Your task to perform on an android device: Open privacy settings Image 0: 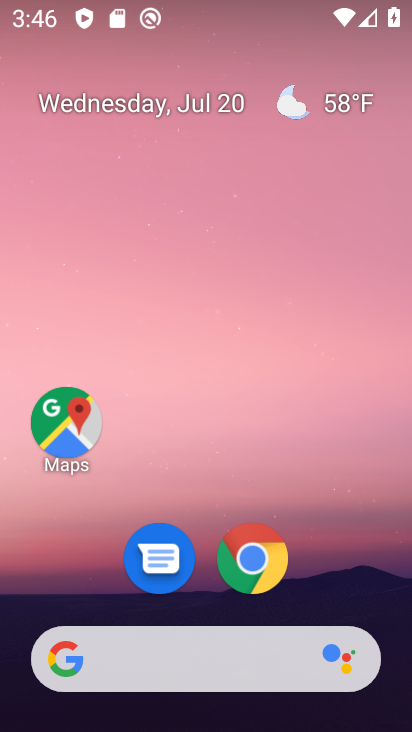
Step 0: drag from (106, 548) to (240, 10)
Your task to perform on an android device: Open privacy settings Image 1: 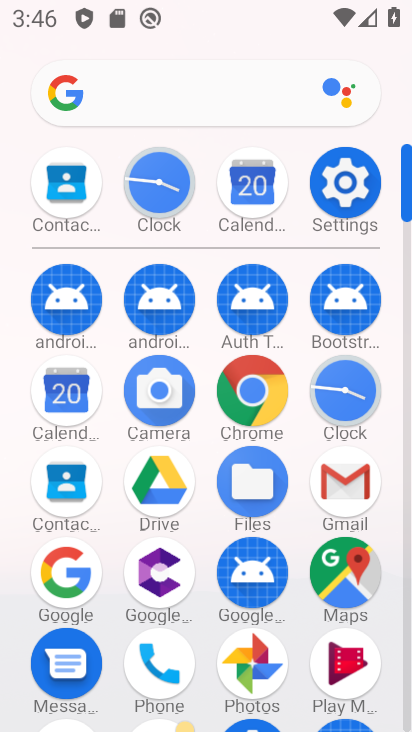
Step 1: click (343, 187)
Your task to perform on an android device: Open privacy settings Image 2: 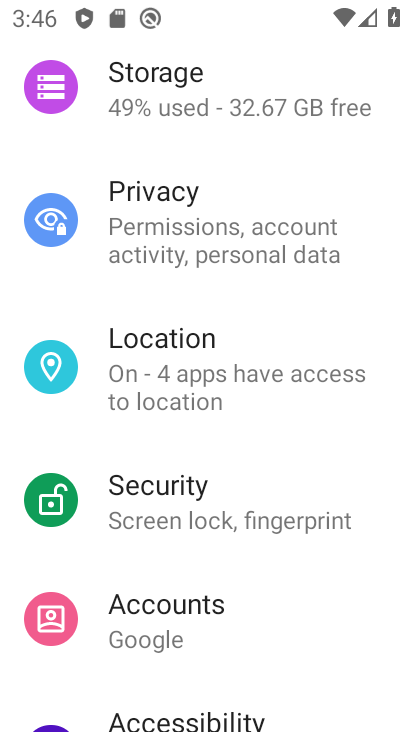
Step 2: click (171, 223)
Your task to perform on an android device: Open privacy settings Image 3: 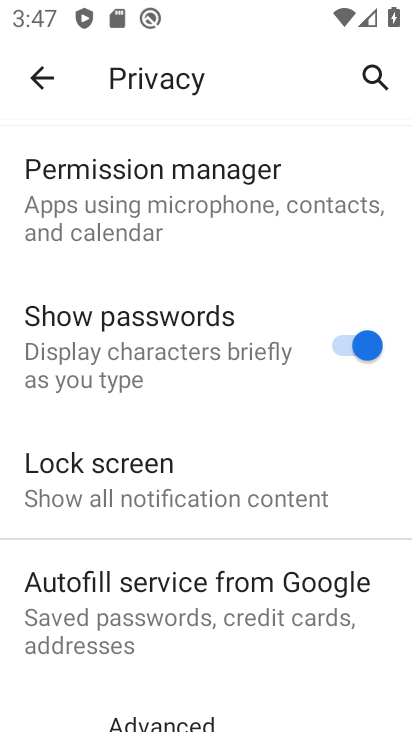
Step 3: task complete